Your task to perform on an android device: Go to accessibility settings Image 0: 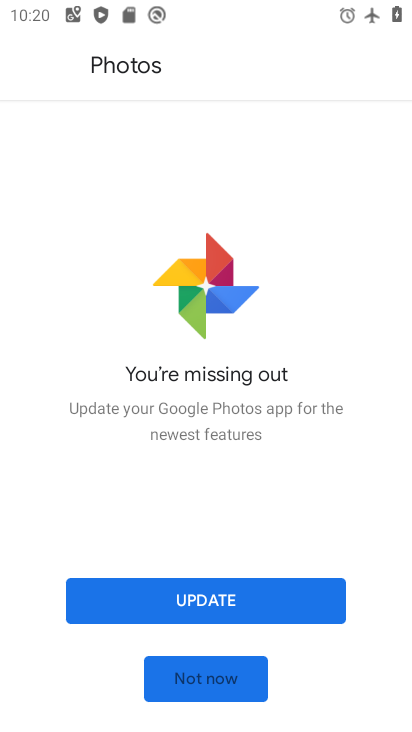
Step 0: press home button
Your task to perform on an android device: Go to accessibility settings Image 1: 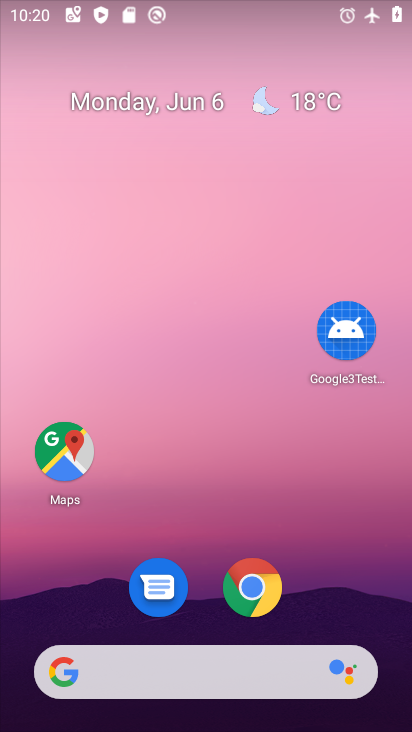
Step 1: press home button
Your task to perform on an android device: Go to accessibility settings Image 2: 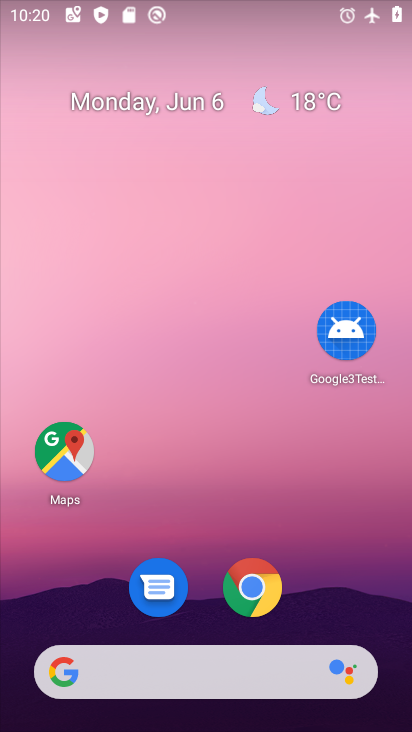
Step 2: drag from (295, 585) to (309, 99)
Your task to perform on an android device: Go to accessibility settings Image 3: 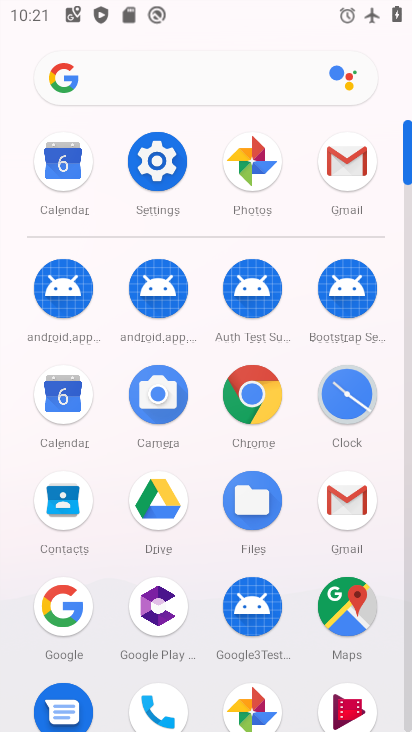
Step 3: click (149, 157)
Your task to perform on an android device: Go to accessibility settings Image 4: 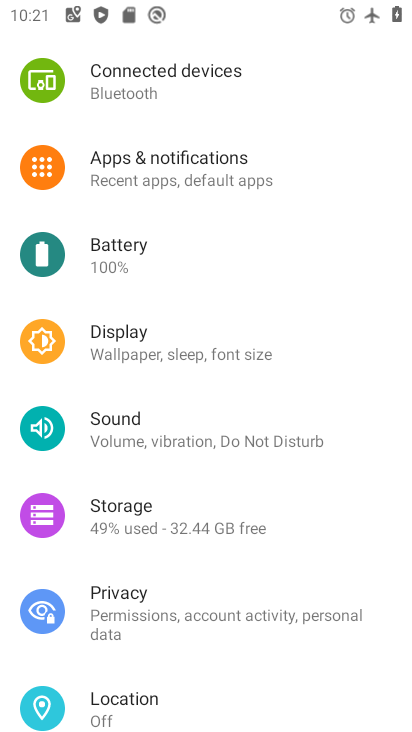
Step 4: drag from (215, 586) to (327, 62)
Your task to perform on an android device: Go to accessibility settings Image 5: 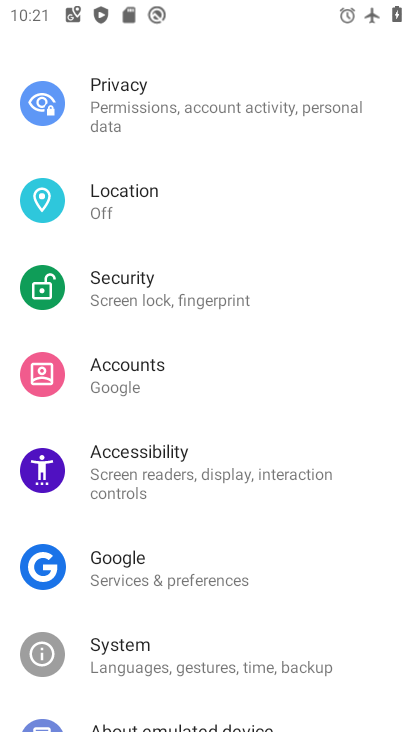
Step 5: drag from (259, 579) to (273, 385)
Your task to perform on an android device: Go to accessibility settings Image 6: 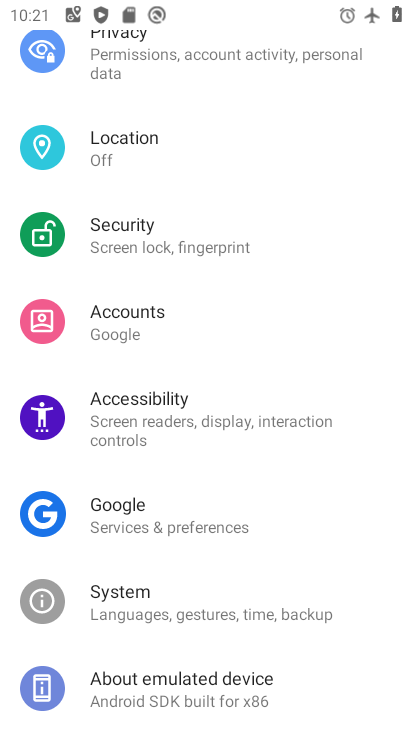
Step 6: click (168, 399)
Your task to perform on an android device: Go to accessibility settings Image 7: 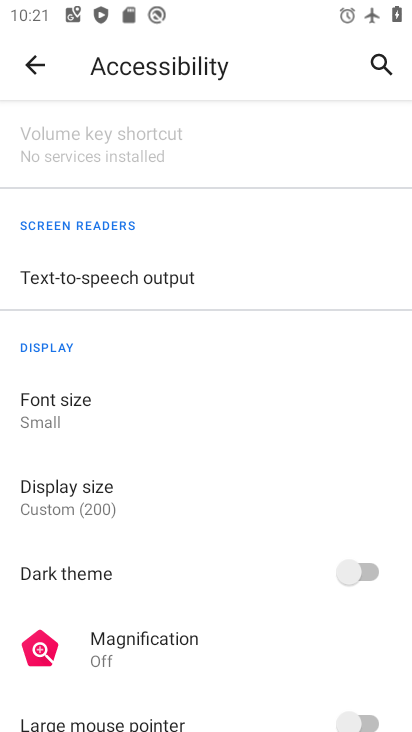
Step 7: task complete